Your task to perform on an android device: Search for a 24-inch cordless drill. Image 0: 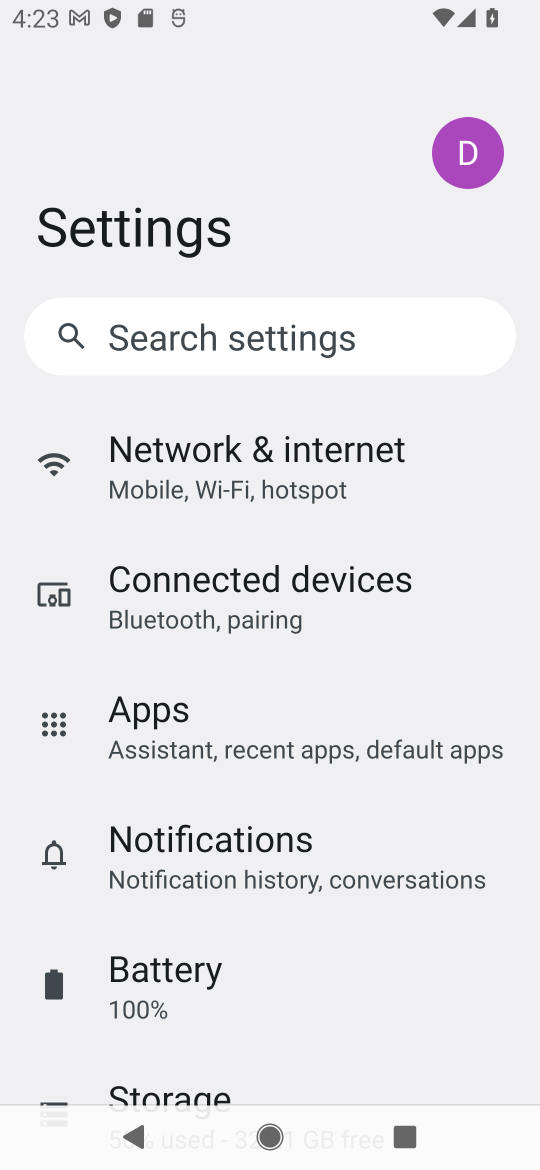
Step 0: press home button
Your task to perform on an android device: Search for a 24-inch cordless drill. Image 1: 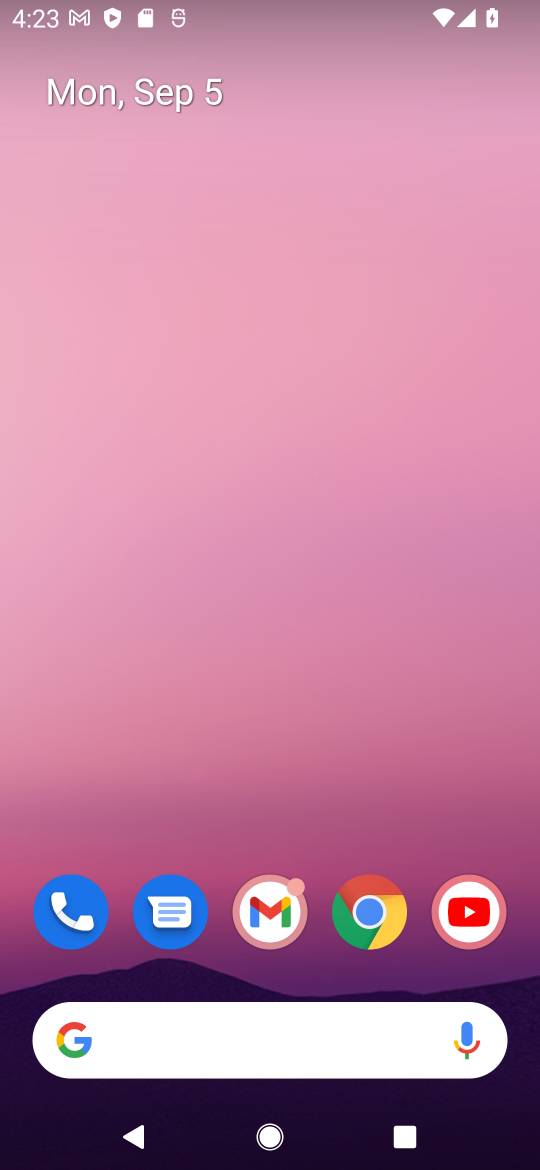
Step 1: click (388, 908)
Your task to perform on an android device: Search for a 24-inch cordless drill. Image 2: 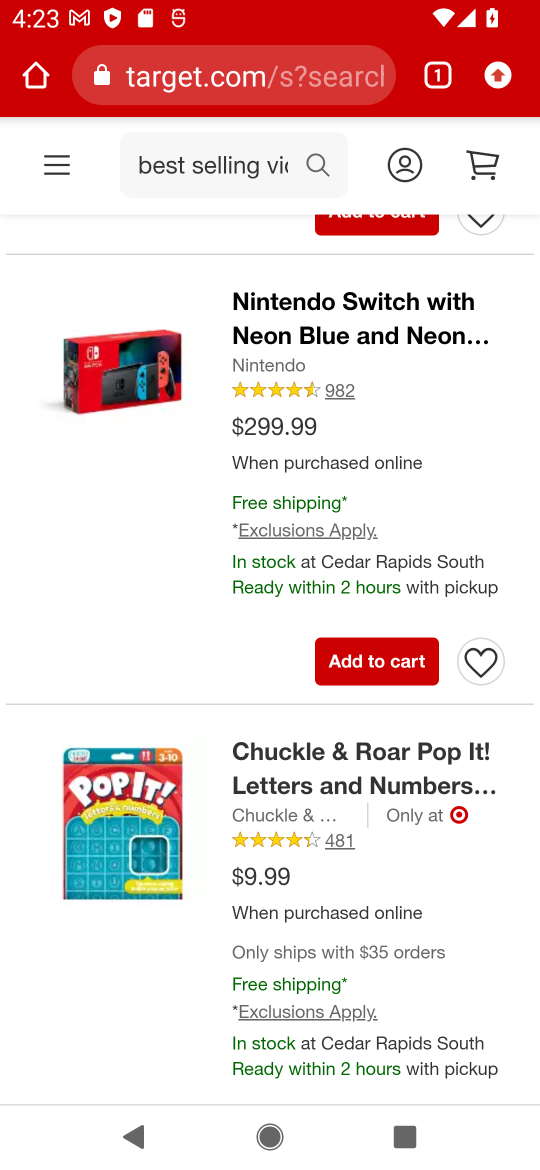
Step 2: click (224, 86)
Your task to perform on an android device: Search for a 24-inch cordless drill. Image 3: 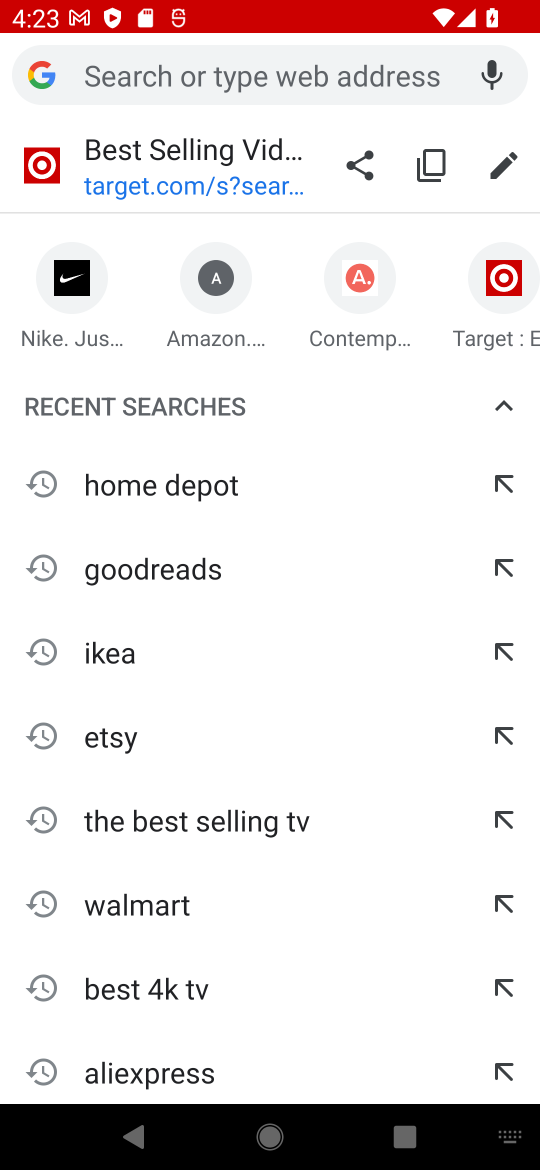
Step 3: click (210, 64)
Your task to perform on an android device: Search for a 24-inch cordless drill. Image 4: 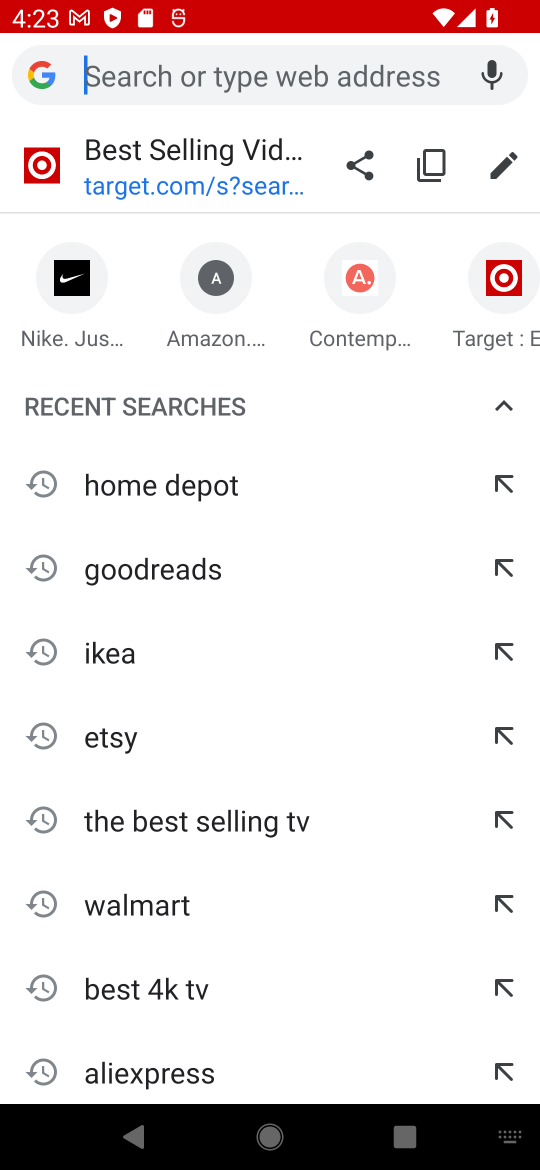
Step 4: type "24-inch cordless drill"
Your task to perform on an android device: Search for a 24-inch cordless drill. Image 5: 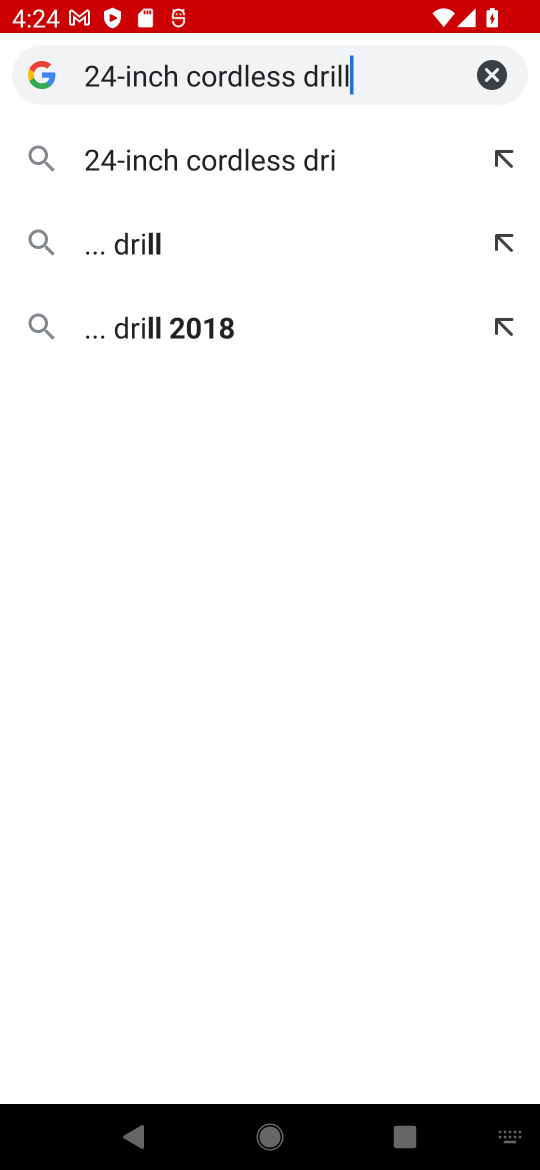
Step 5: type ""
Your task to perform on an android device: Search for a 24-inch cordless drill. Image 6: 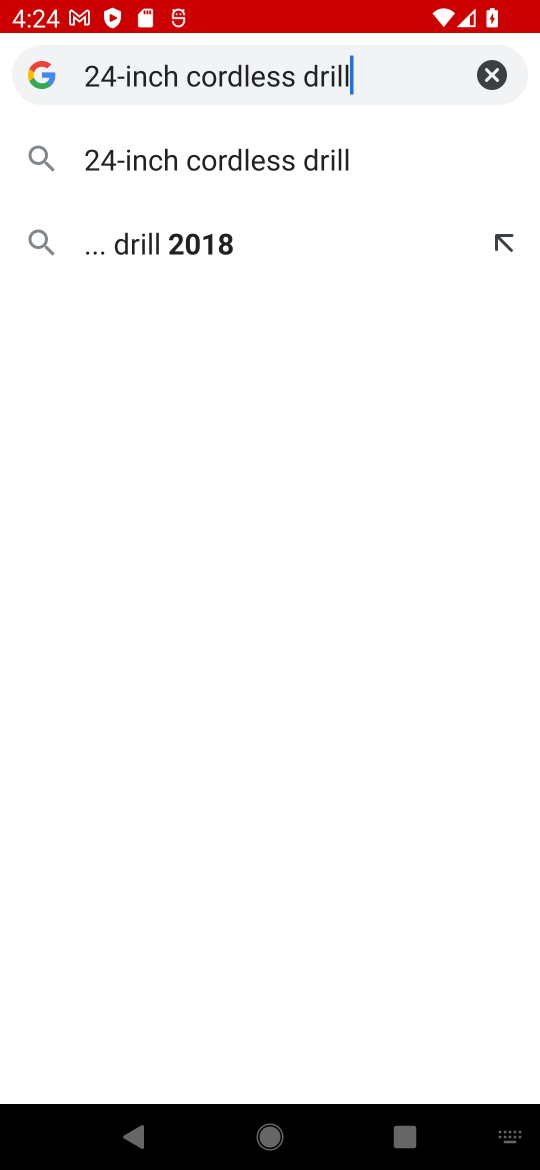
Step 6: press enter
Your task to perform on an android device: Search for a 24-inch cordless drill. Image 7: 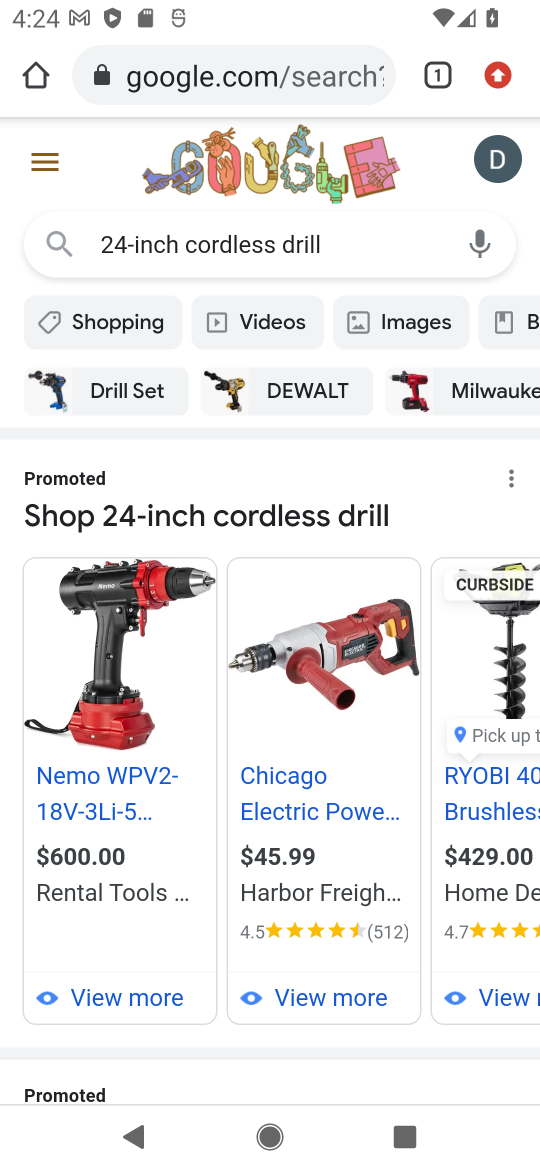
Step 7: click (418, 834)
Your task to perform on an android device: Search for a 24-inch cordless drill. Image 8: 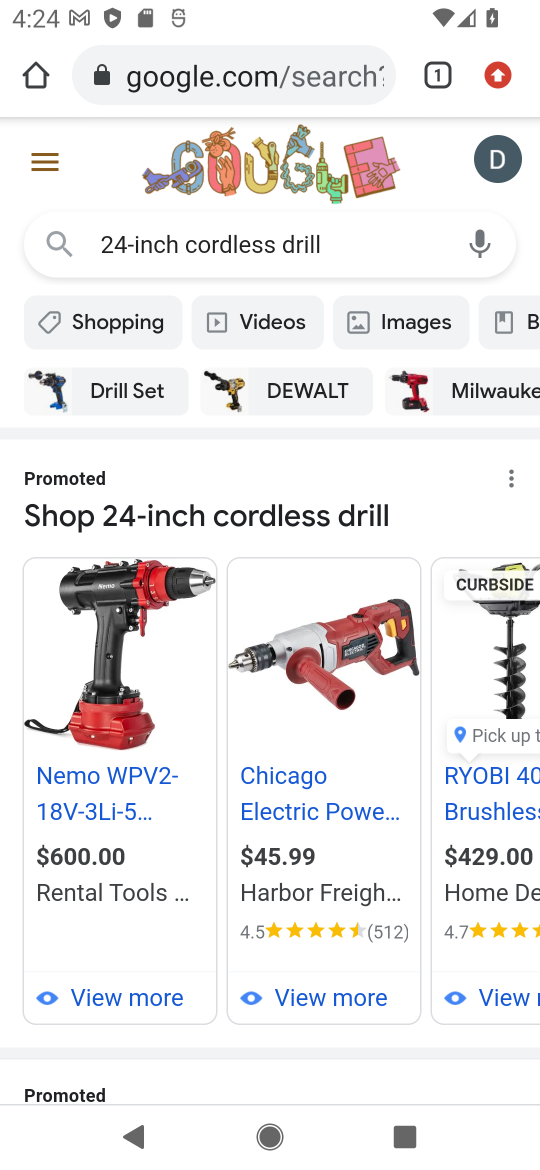
Step 8: task complete